Your task to perform on an android device: Open Google Image 0: 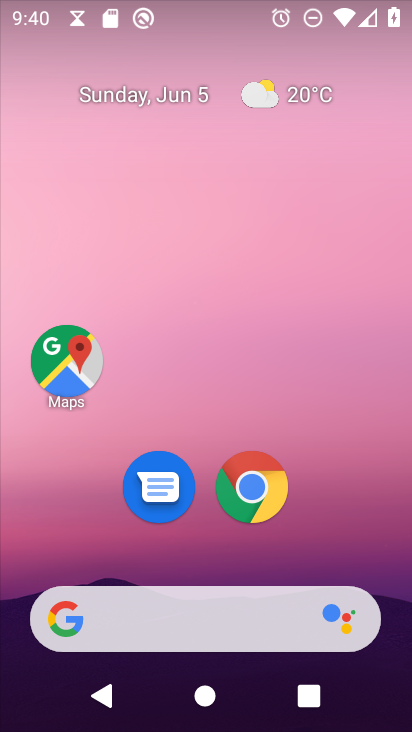
Step 0: drag from (298, 479) to (294, 226)
Your task to perform on an android device: Open Google Image 1: 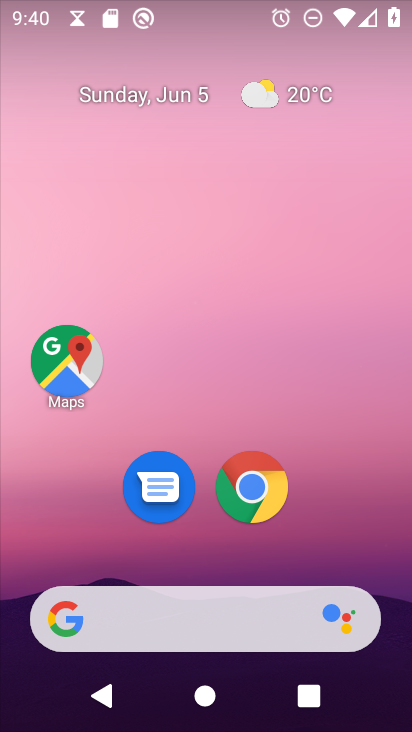
Step 1: drag from (226, 541) to (241, 174)
Your task to perform on an android device: Open Google Image 2: 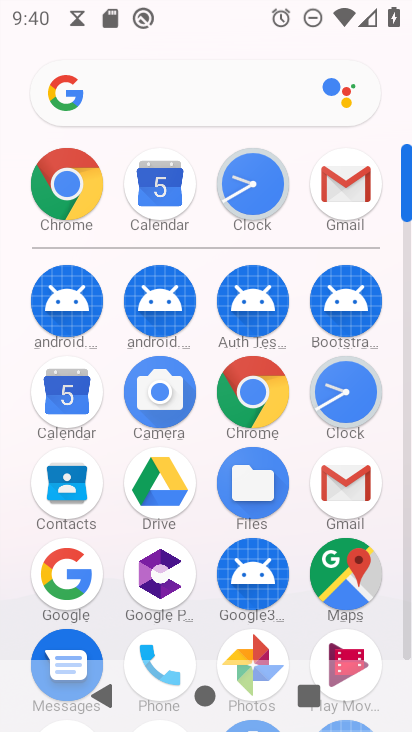
Step 2: click (76, 575)
Your task to perform on an android device: Open Google Image 3: 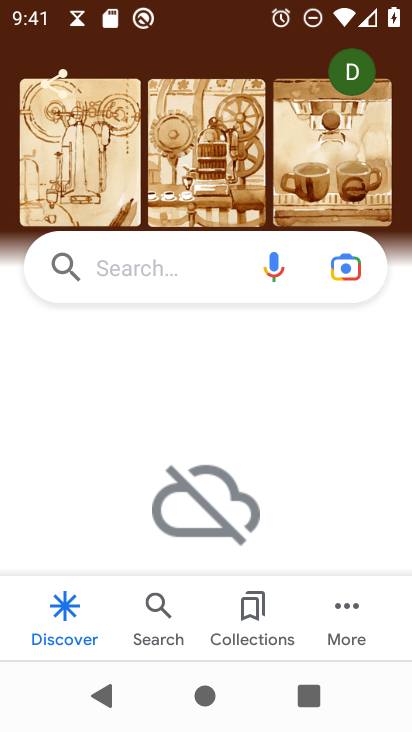
Step 3: task complete